Your task to perform on an android device: Go to Wikipedia Image 0: 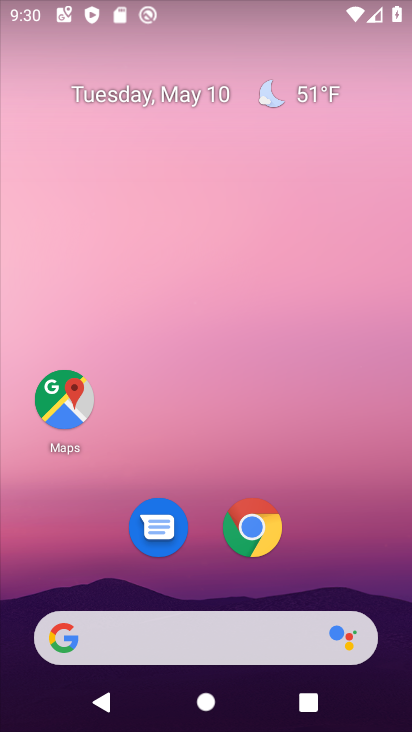
Step 0: click (260, 523)
Your task to perform on an android device: Go to Wikipedia Image 1: 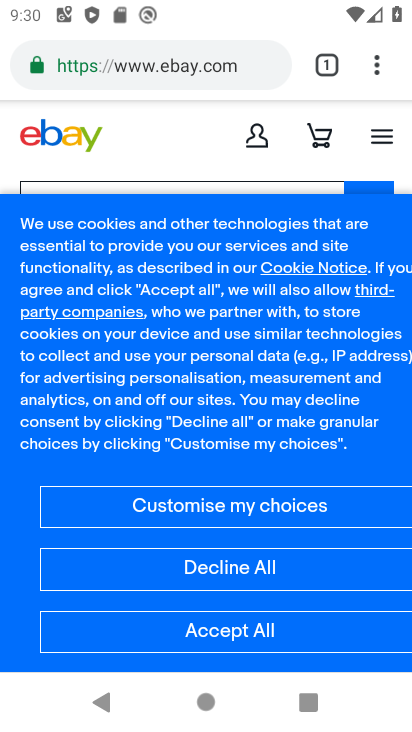
Step 1: click (378, 70)
Your task to perform on an android device: Go to Wikipedia Image 2: 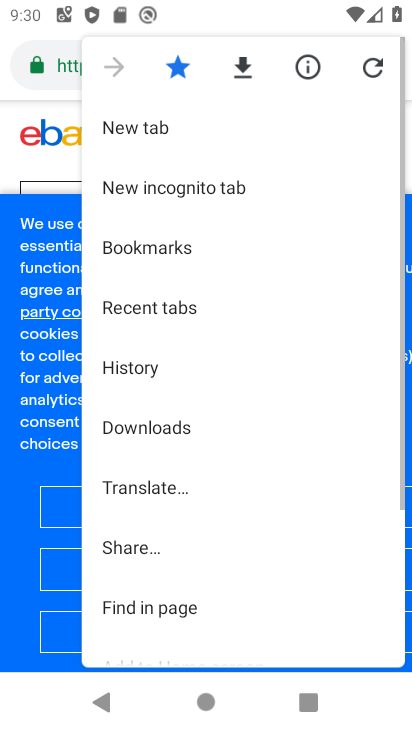
Step 2: click (146, 126)
Your task to perform on an android device: Go to Wikipedia Image 3: 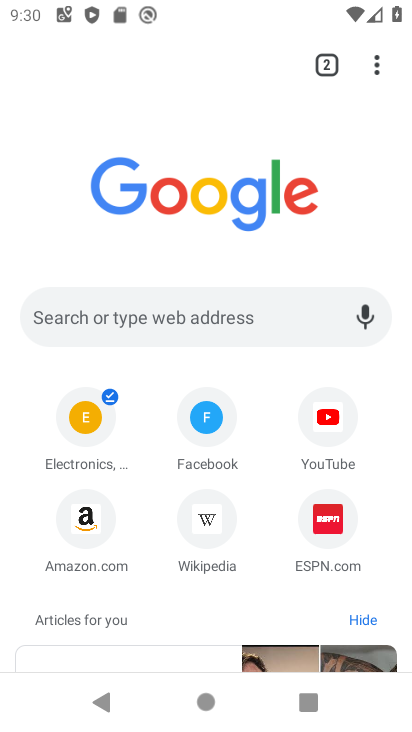
Step 3: click (210, 521)
Your task to perform on an android device: Go to Wikipedia Image 4: 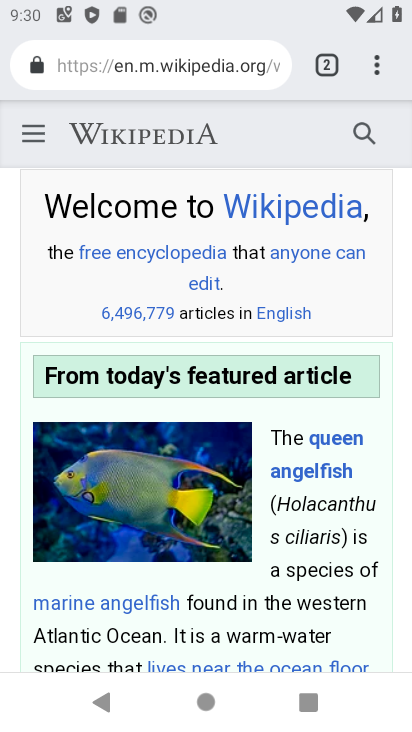
Step 4: task complete